Your task to perform on an android device: What's the weather going to be tomorrow? Image 0: 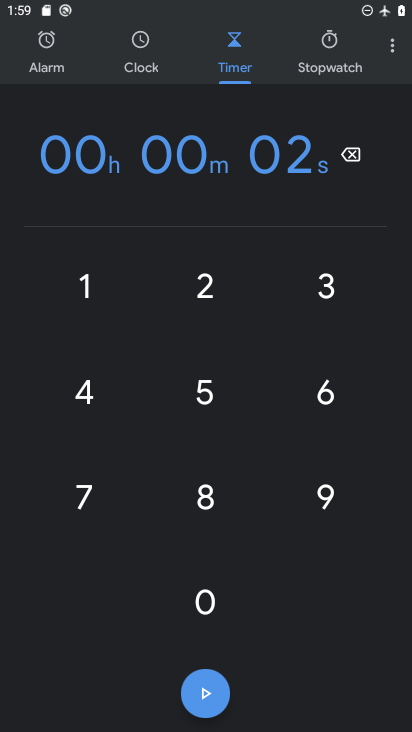
Step 0: press home button
Your task to perform on an android device: What's the weather going to be tomorrow? Image 1: 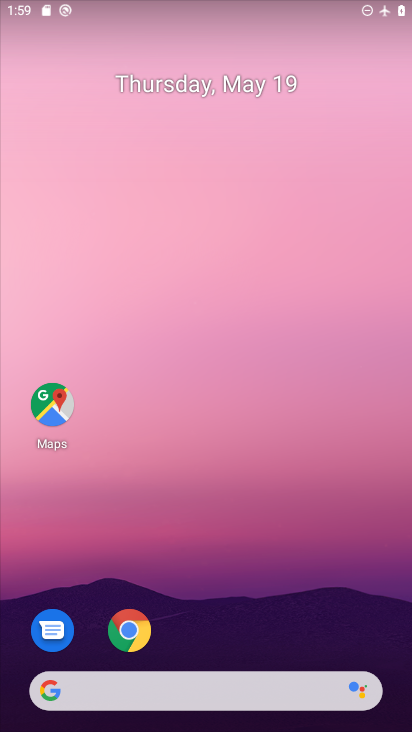
Step 1: click (160, 676)
Your task to perform on an android device: What's the weather going to be tomorrow? Image 2: 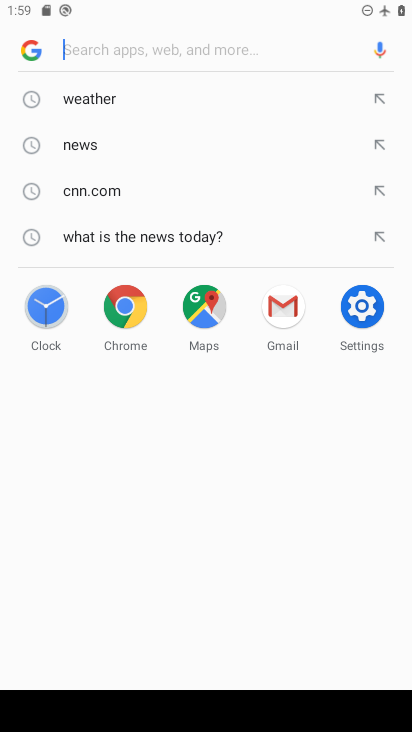
Step 2: click (108, 88)
Your task to perform on an android device: What's the weather going to be tomorrow? Image 3: 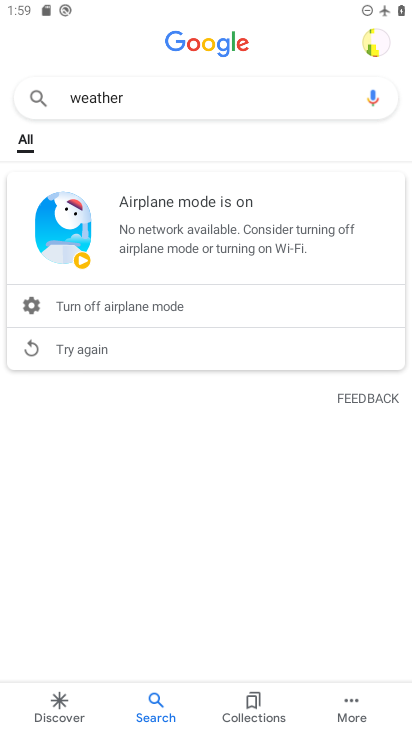
Step 3: task complete